Your task to perform on an android device: Search for vegetarian restaurants on Maps Image 0: 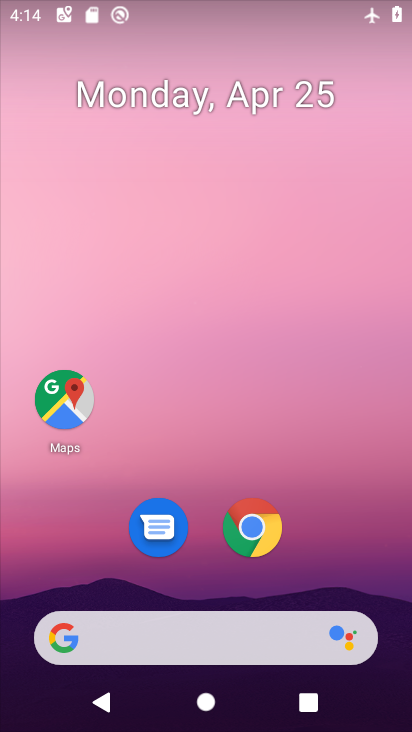
Step 0: click (57, 396)
Your task to perform on an android device: Search for vegetarian restaurants on Maps Image 1: 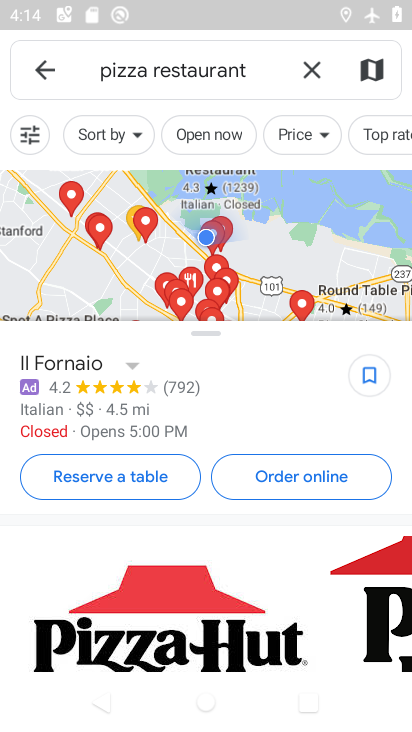
Step 1: click (304, 64)
Your task to perform on an android device: Search for vegetarian restaurants on Maps Image 2: 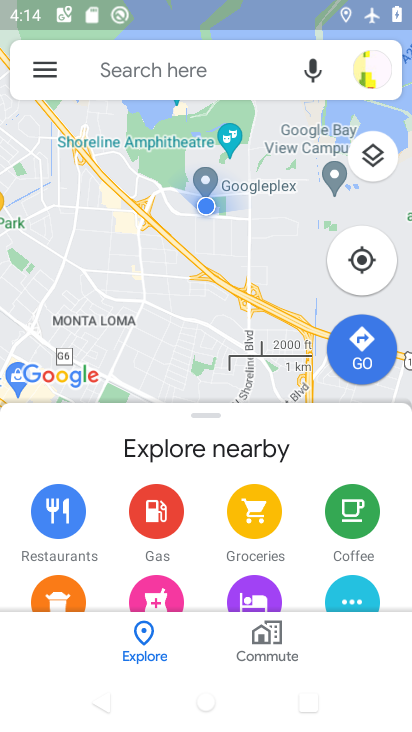
Step 2: click (141, 63)
Your task to perform on an android device: Search for vegetarian restaurants on Maps Image 3: 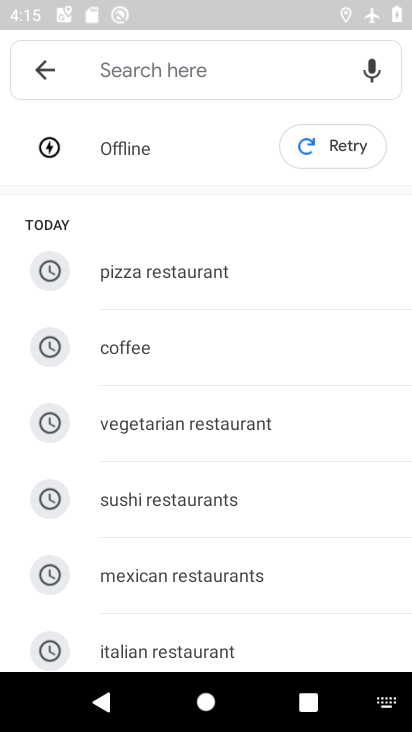
Step 3: type "vegetarian restaurants"
Your task to perform on an android device: Search for vegetarian restaurants on Maps Image 4: 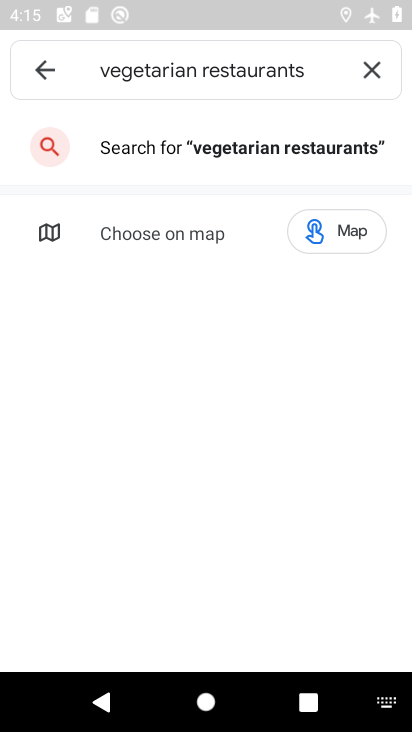
Step 4: click (249, 150)
Your task to perform on an android device: Search for vegetarian restaurants on Maps Image 5: 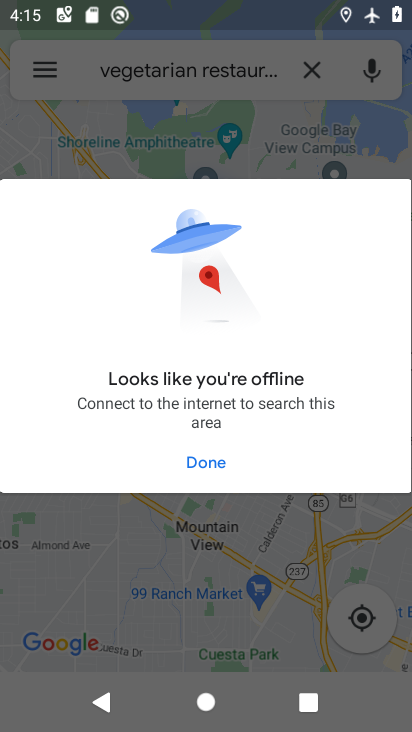
Step 5: task complete